Your task to perform on an android device: find snoozed emails in the gmail app Image 0: 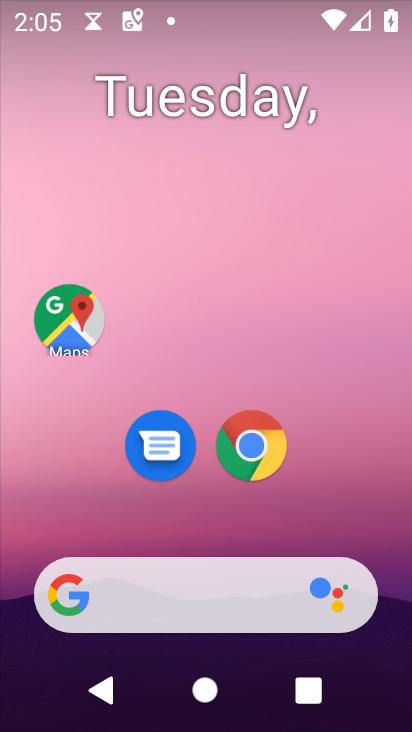
Step 0: drag from (350, 374) to (286, 48)
Your task to perform on an android device: find snoozed emails in the gmail app Image 1: 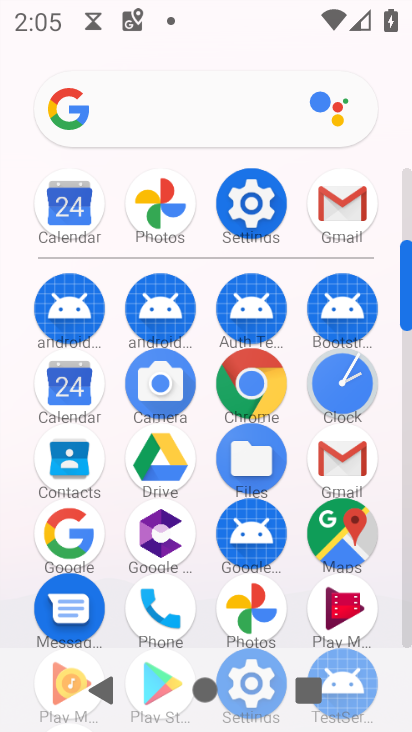
Step 1: click (342, 202)
Your task to perform on an android device: find snoozed emails in the gmail app Image 2: 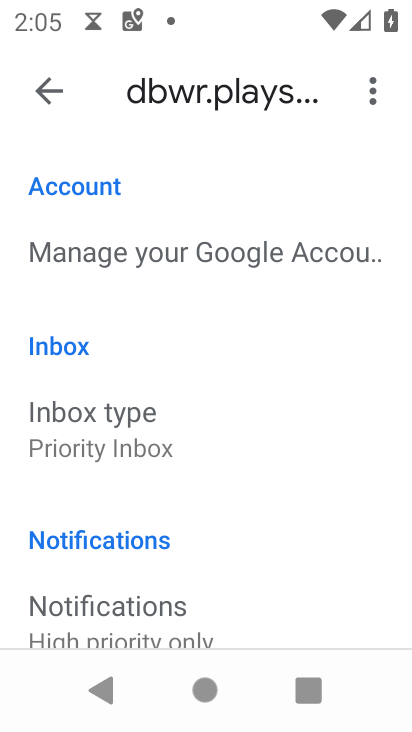
Step 2: click (63, 89)
Your task to perform on an android device: find snoozed emails in the gmail app Image 3: 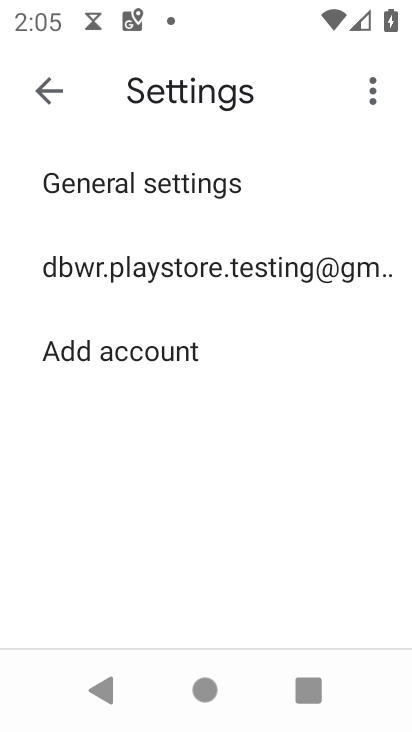
Step 3: click (63, 91)
Your task to perform on an android device: find snoozed emails in the gmail app Image 4: 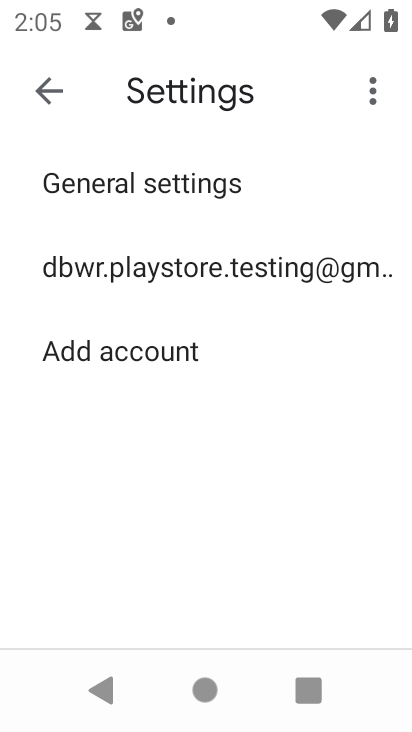
Step 4: click (63, 91)
Your task to perform on an android device: find snoozed emails in the gmail app Image 5: 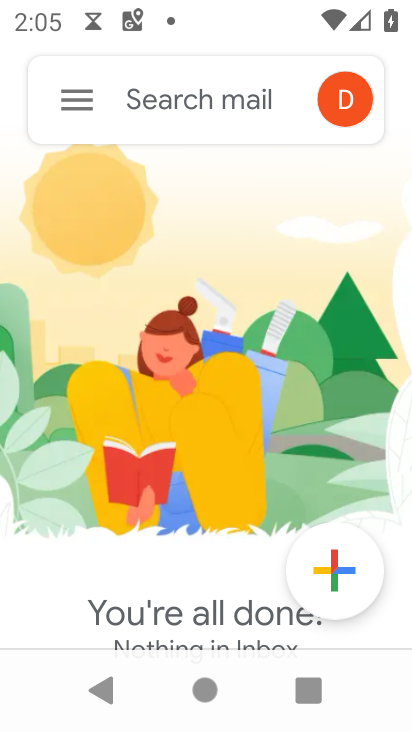
Step 5: click (63, 92)
Your task to perform on an android device: find snoozed emails in the gmail app Image 6: 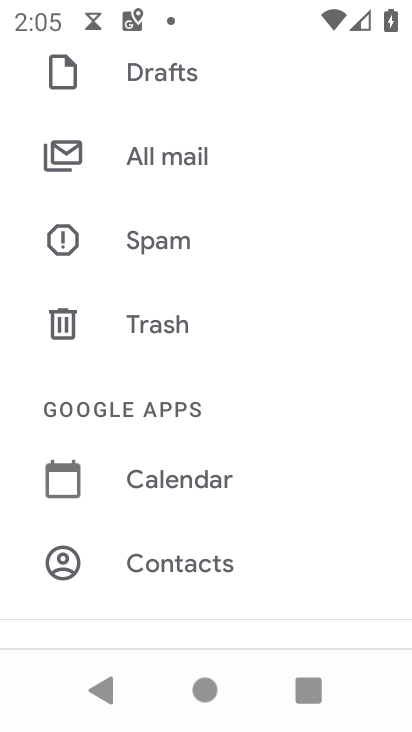
Step 6: drag from (237, 280) to (315, 570)
Your task to perform on an android device: find snoozed emails in the gmail app Image 7: 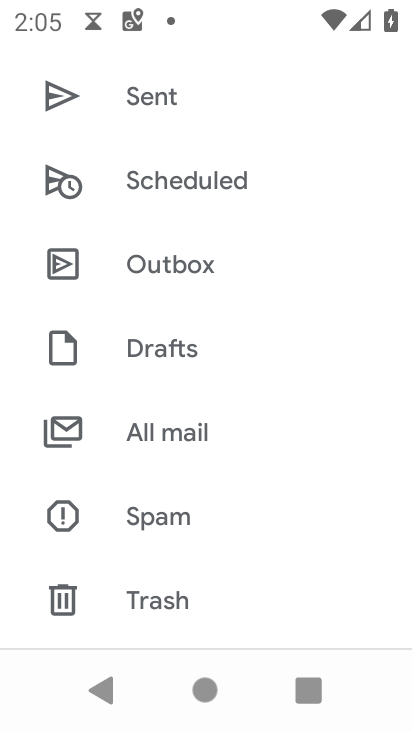
Step 7: drag from (188, 192) to (276, 546)
Your task to perform on an android device: find snoozed emails in the gmail app Image 8: 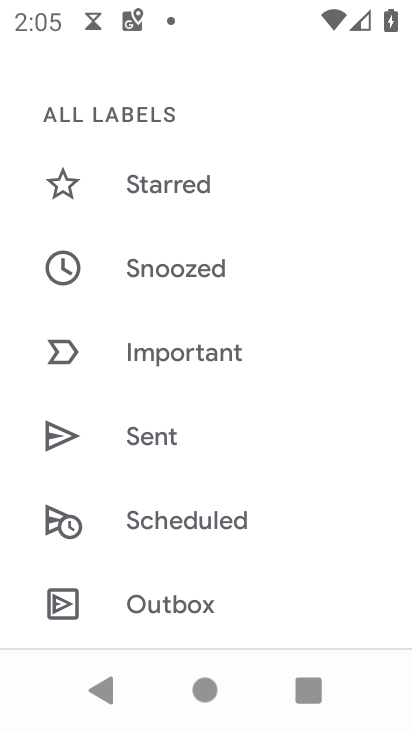
Step 8: click (198, 278)
Your task to perform on an android device: find snoozed emails in the gmail app Image 9: 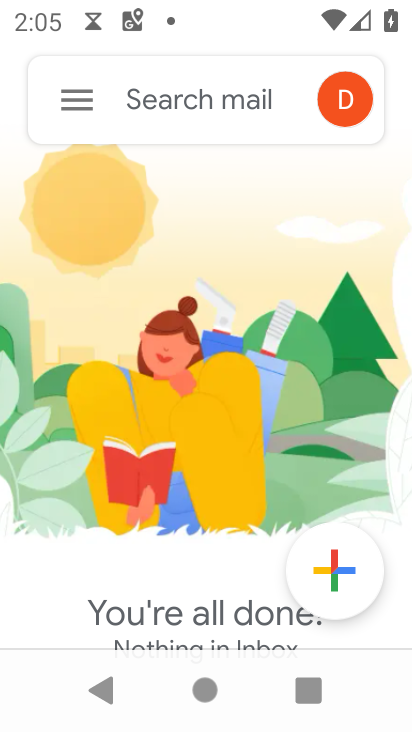
Step 9: task complete